Your task to perform on an android device: all mails in gmail Image 0: 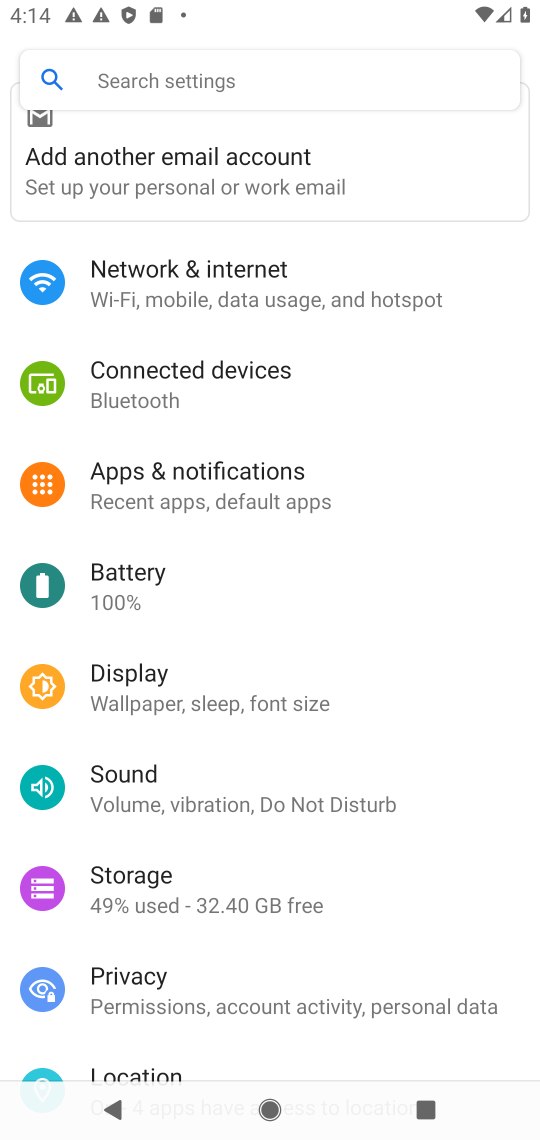
Step 0: press home button
Your task to perform on an android device: all mails in gmail Image 1: 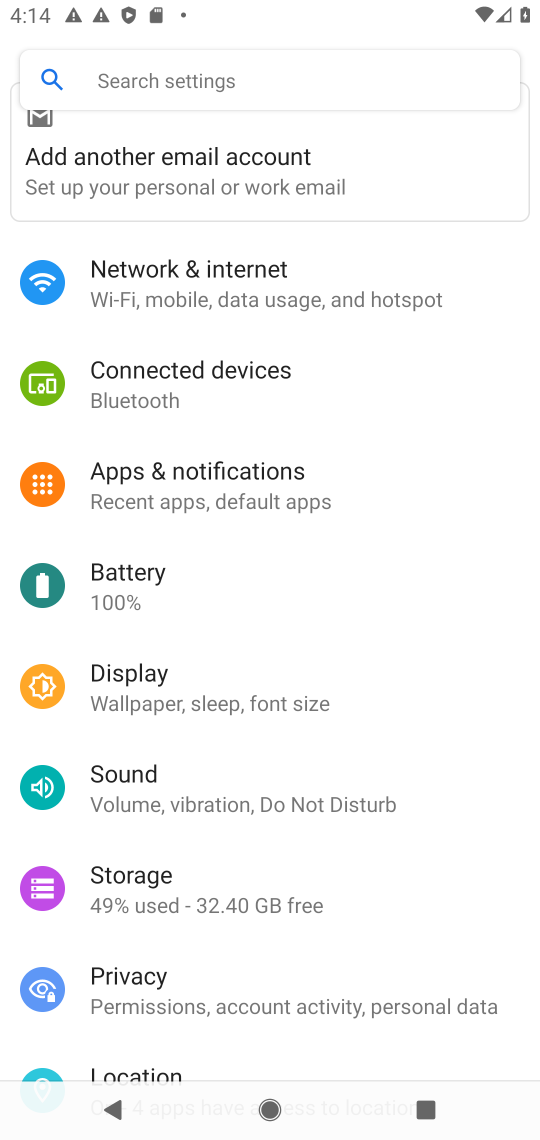
Step 1: press home button
Your task to perform on an android device: all mails in gmail Image 2: 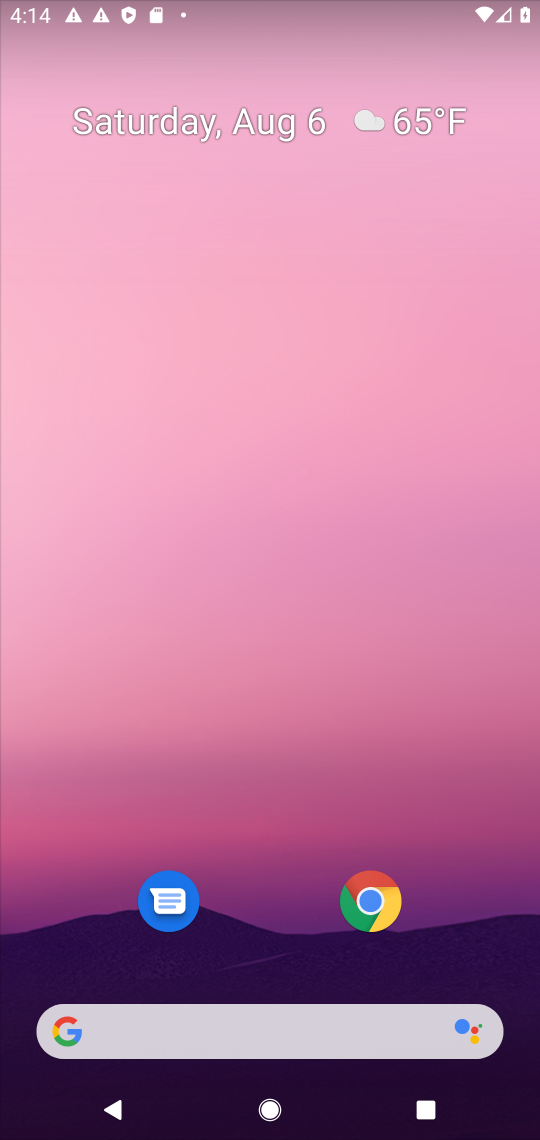
Step 2: drag from (314, 944) to (203, 0)
Your task to perform on an android device: all mails in gmail Image 3: 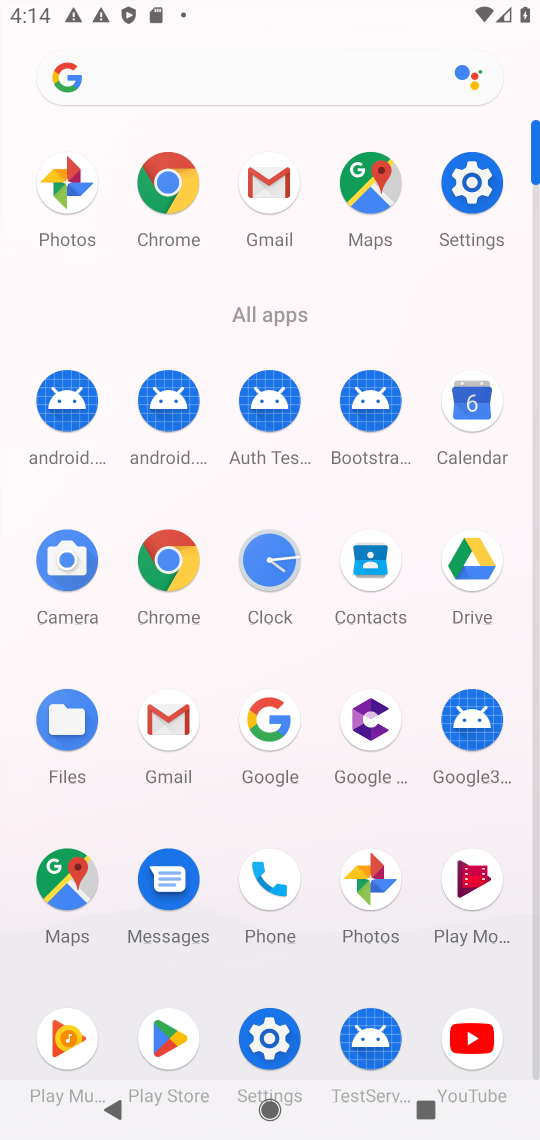
Step 3: click (269, 167)
Your task to perform on an android device: all mails in gmail Image 4: 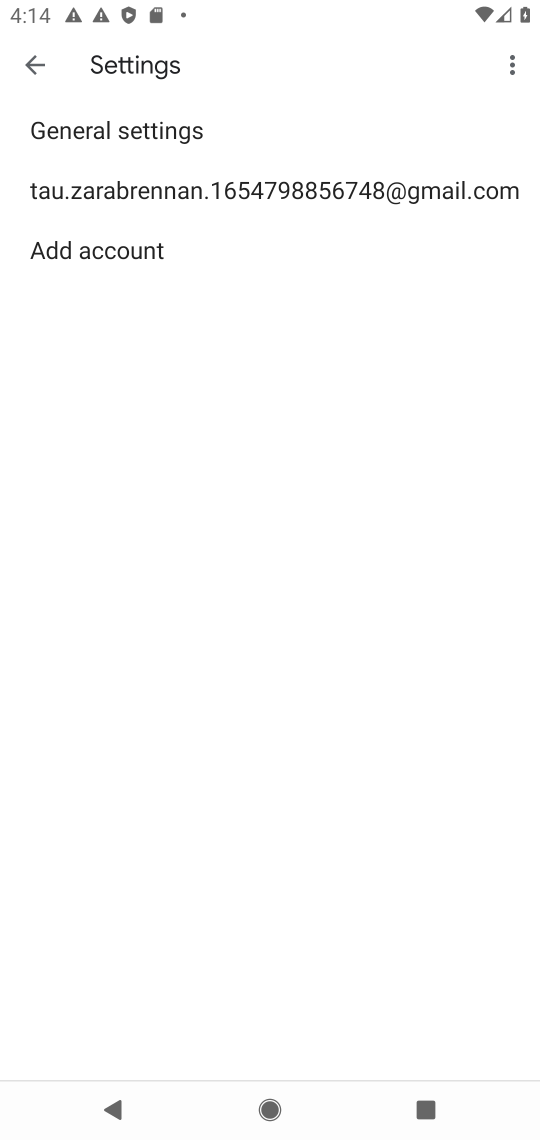
Step 4: click (20, 77)
Your task to perform on an android device: all mails in gmail Image 5: 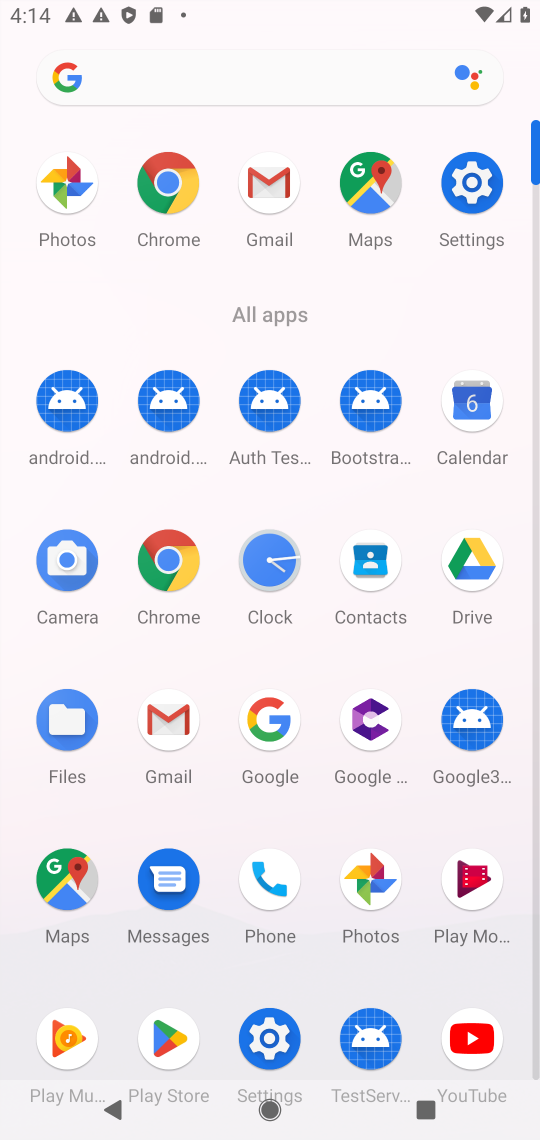
Step 5: click (297, 183)
Your task to perform on an android device: all mails in gmail Image 6: 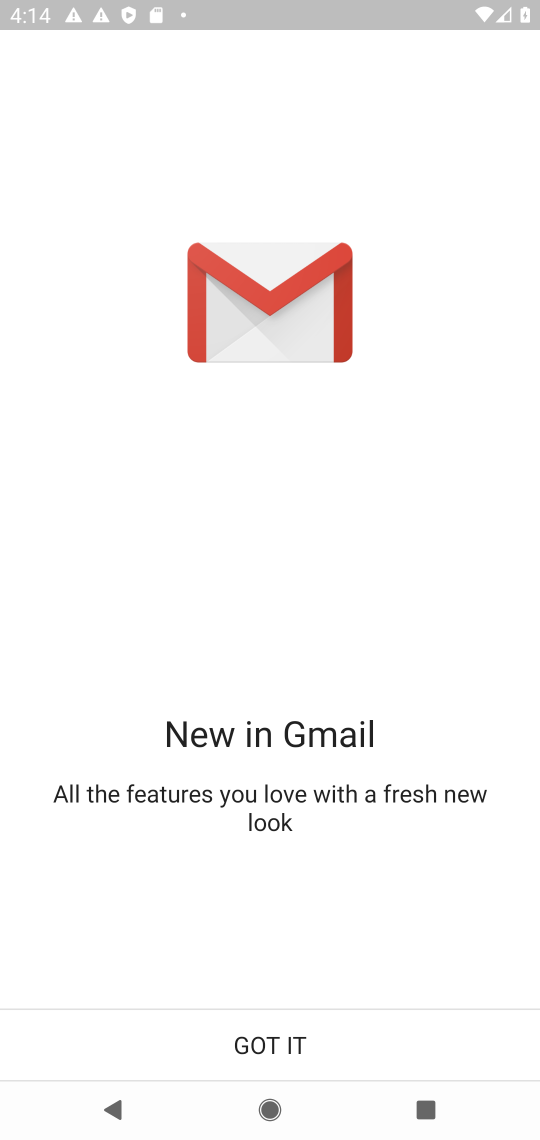
Step 6: click (175, 1031)
Your task to perform on an android device: all mails in gmail Image 7: 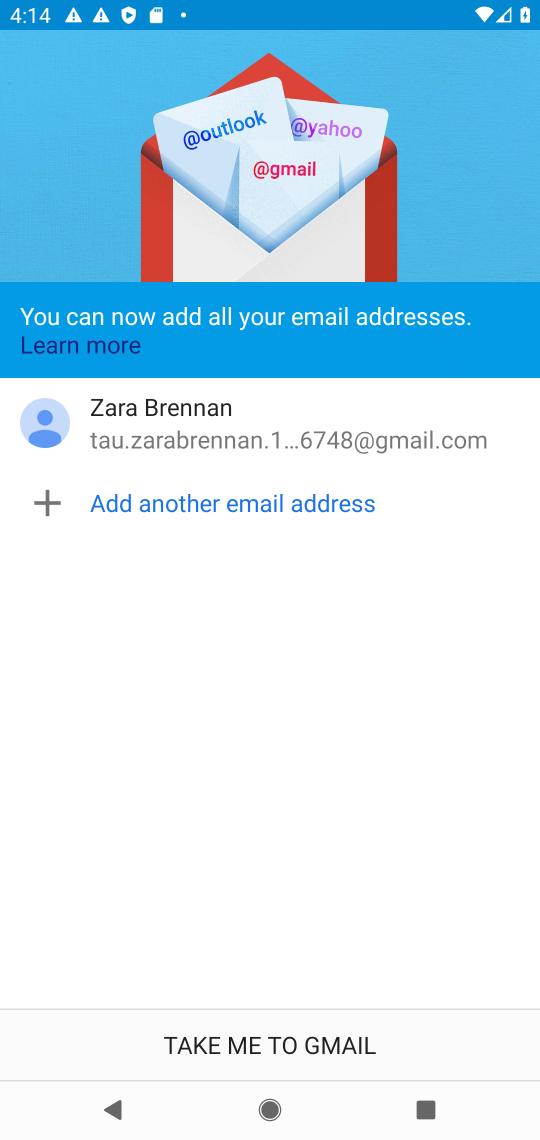
Step 7: click (202, 1054)
Your task to perform on an android device: all mails in gmail Image 8: 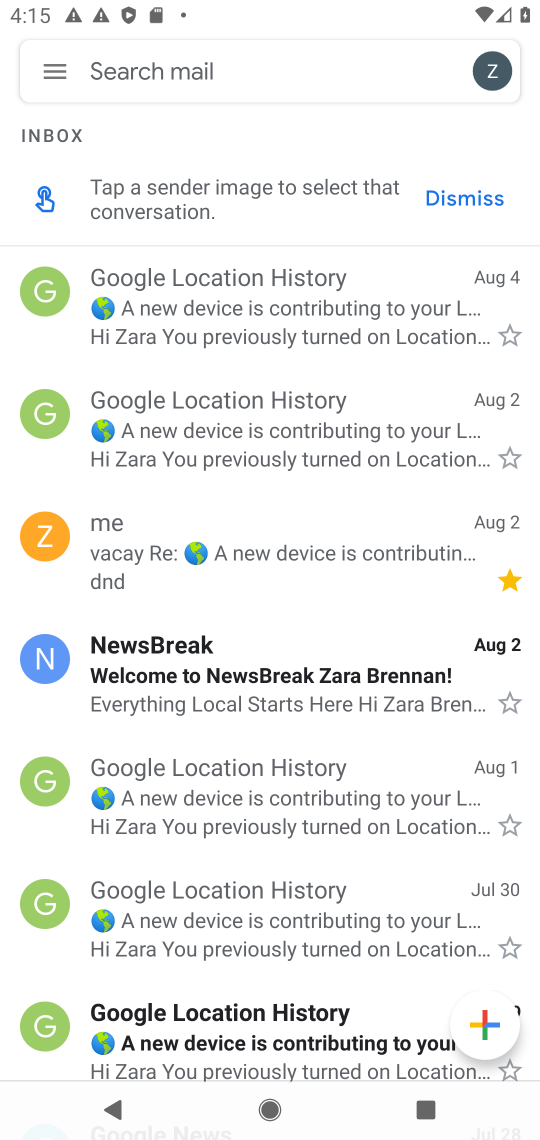
Step 8: click (55, 68)
Your task to perform on an android device: all mails in gmail Image 9: 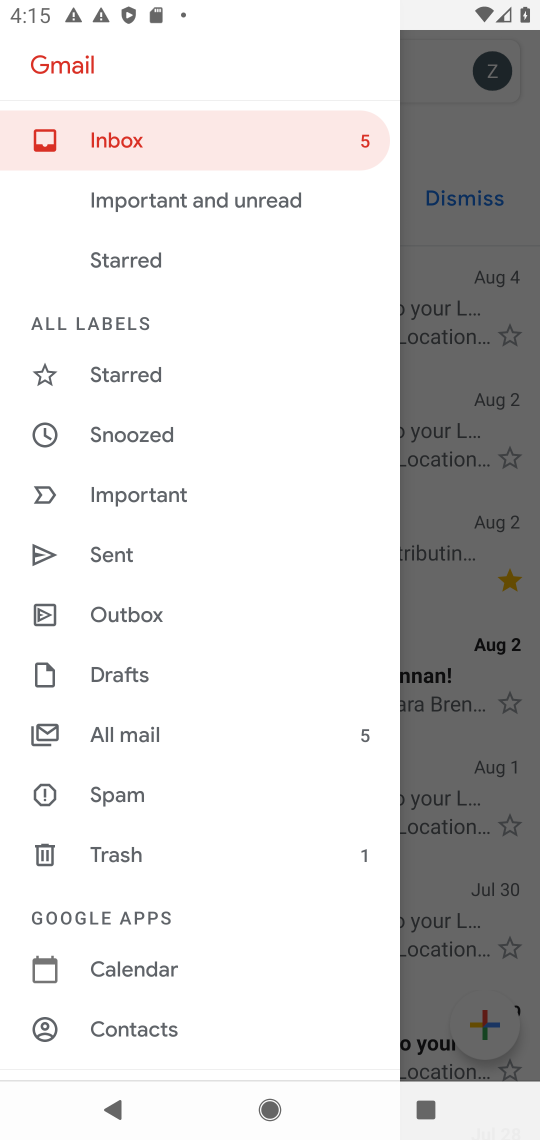
Step 9: drag from (93, 889) to (164, 363)
Your task to perform on an android device: all mails in gmail Image 10: 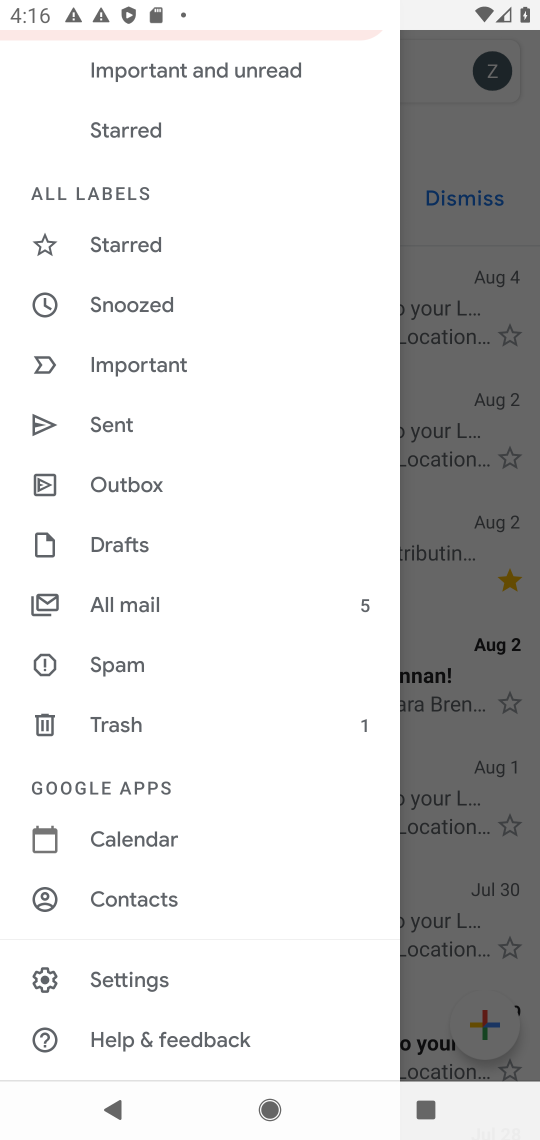
Step 10: click (108, 598)
Your task to perform on an android device: all mails in gmail Image 11: 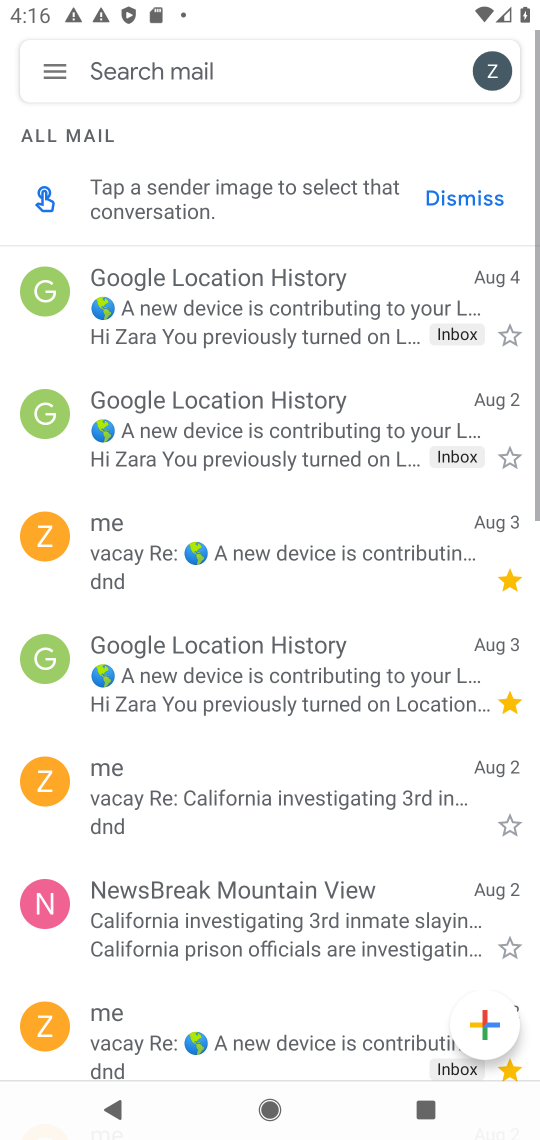
Step 11: task complete